Your task to perform on an android device: Open eBay Image 0: 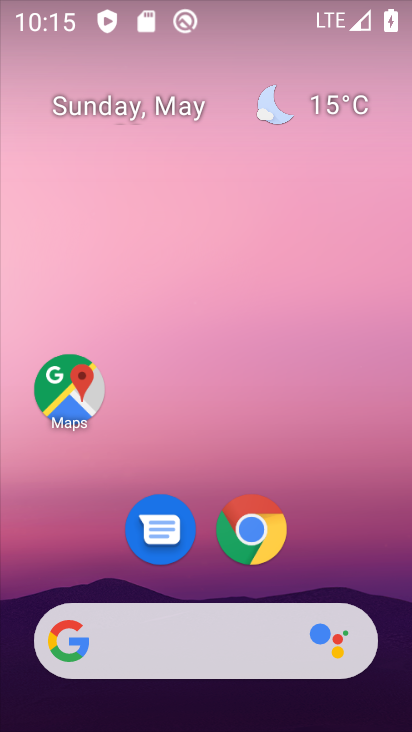
Step 0: drag from (320, 641) to (308, 103)
Your task to perform on an android device: Open eBay Image 1: 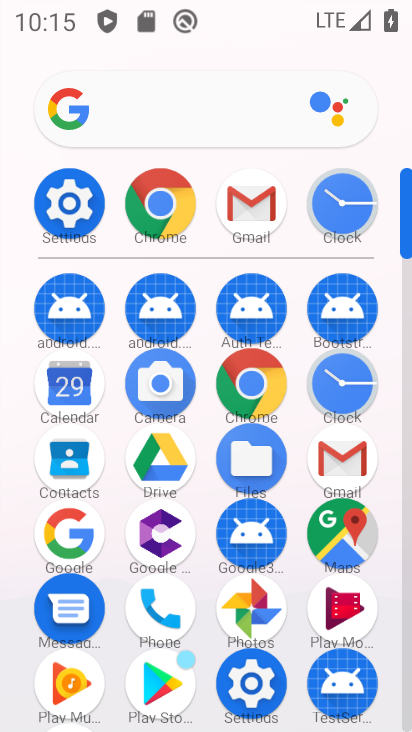
Step 1: click (254, 384)
Your task to perform on an android device: Open eBay Image 2: 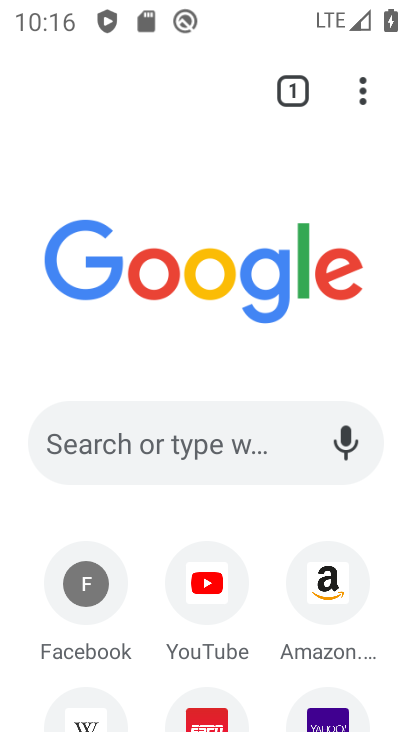
Step 2: drag from (268, 520) to (270, 166)
Your task to perform on an android device: Open eBay Image 3: 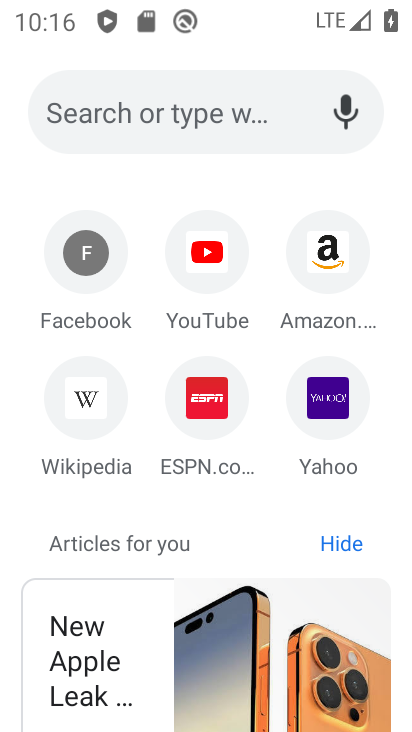
Step 3: click (181, 118)
Your task to perform on an android device: Open eBay Image 4: 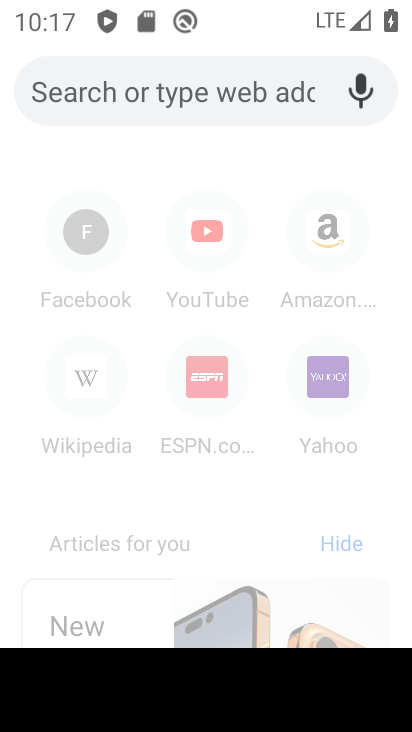
Step 4: type "ebay"
Your task to perform on an android device: Open eBay Image 5: 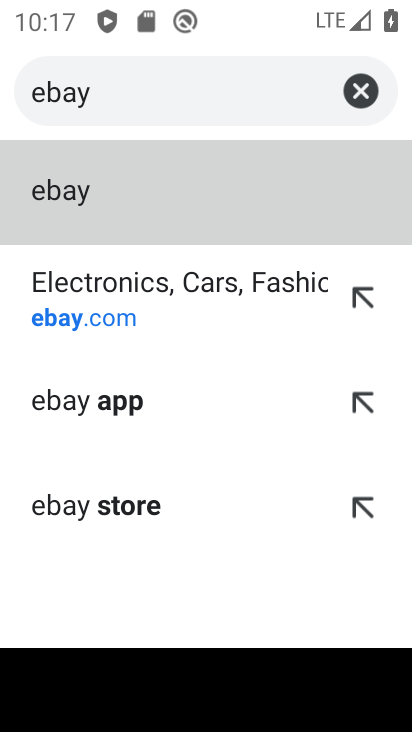
Step 5: click (229, 291)
Your task to perform on an android device: Open eBay Image 6: 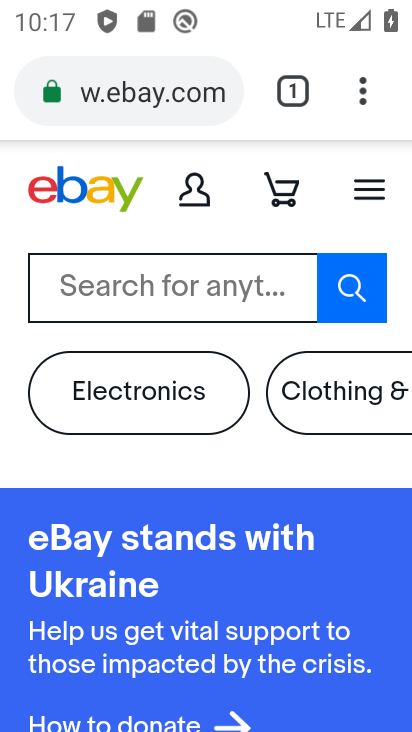
Step 6: task complete